Your task to perform on an android device: Open Yahoo.com Image 0: 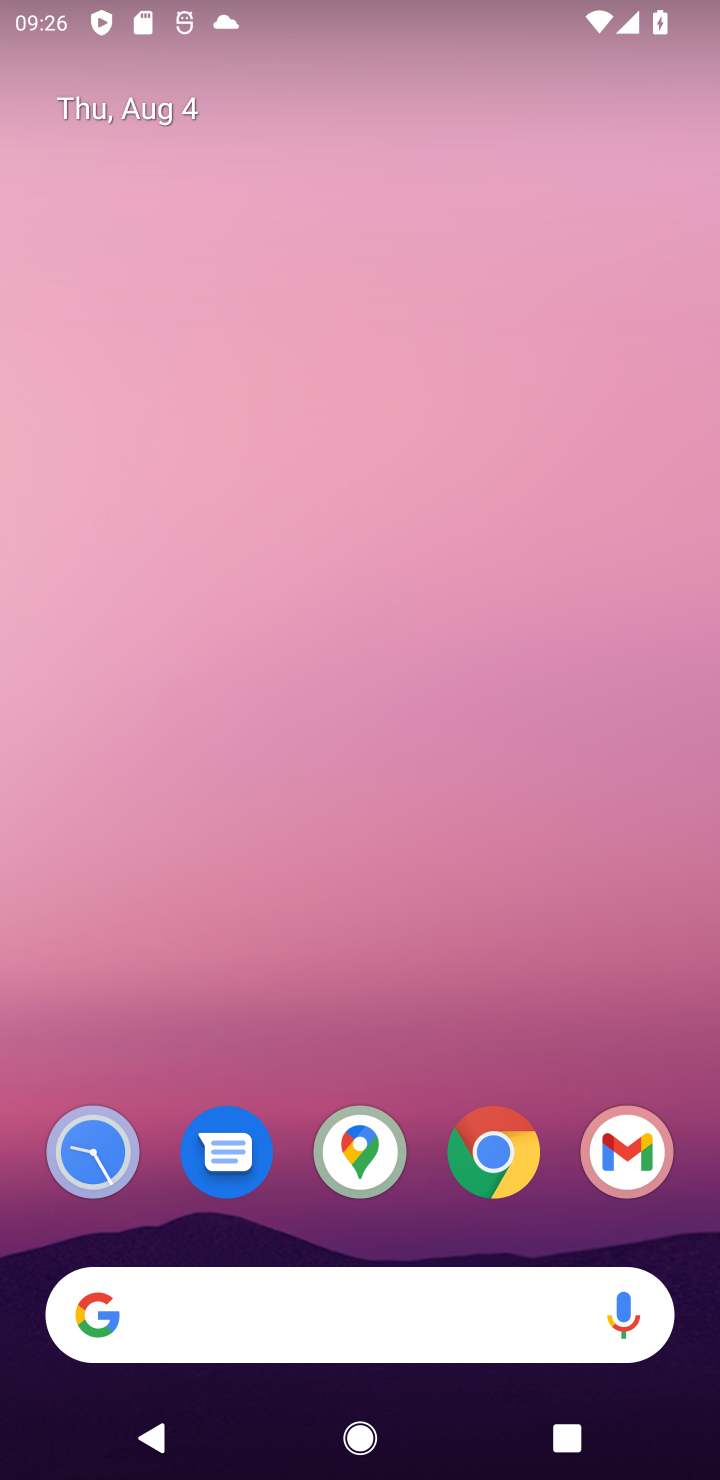
Step 0: click (475, 1159)
Your task to perform on an android device: Open Yahoo.com Image 1: 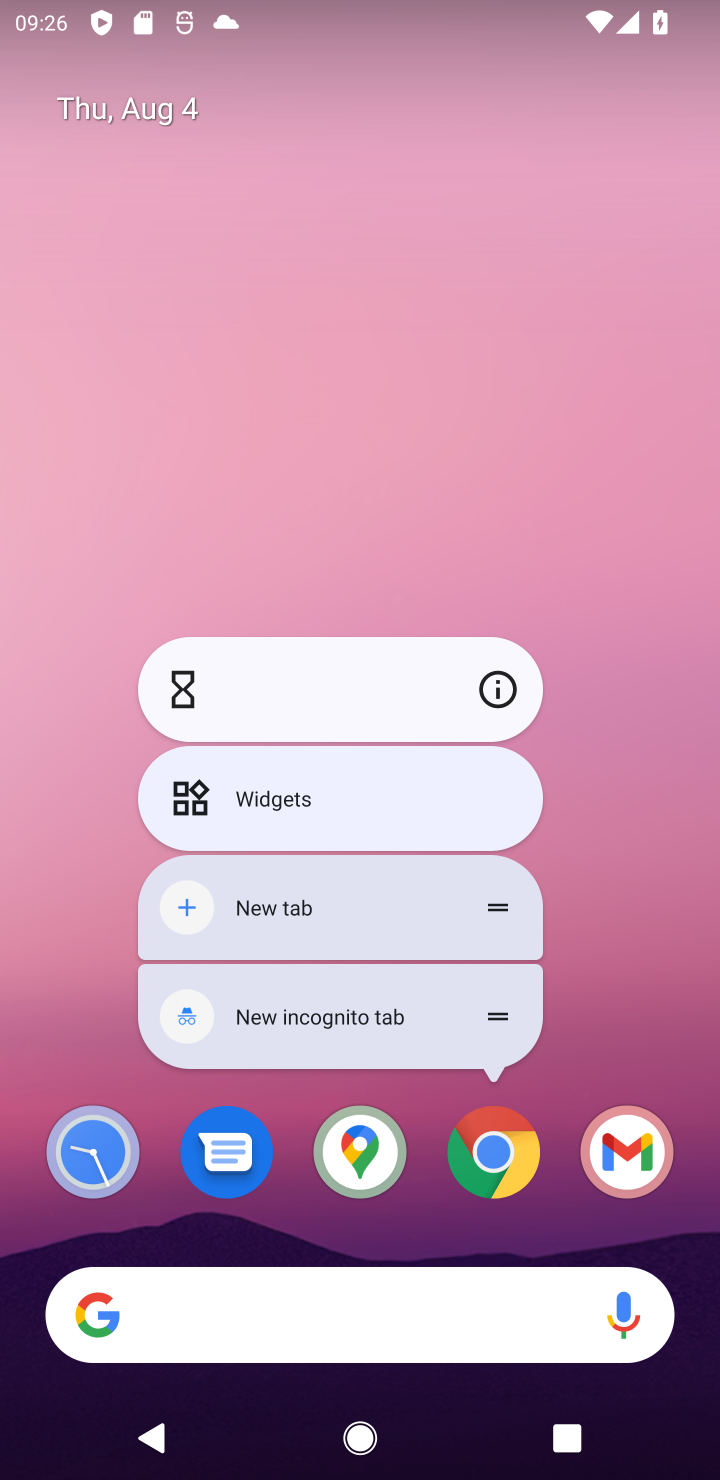
Step 1: click (484, 1120)
Your task to perform on an android device: Open Yahoo.com Image 2: 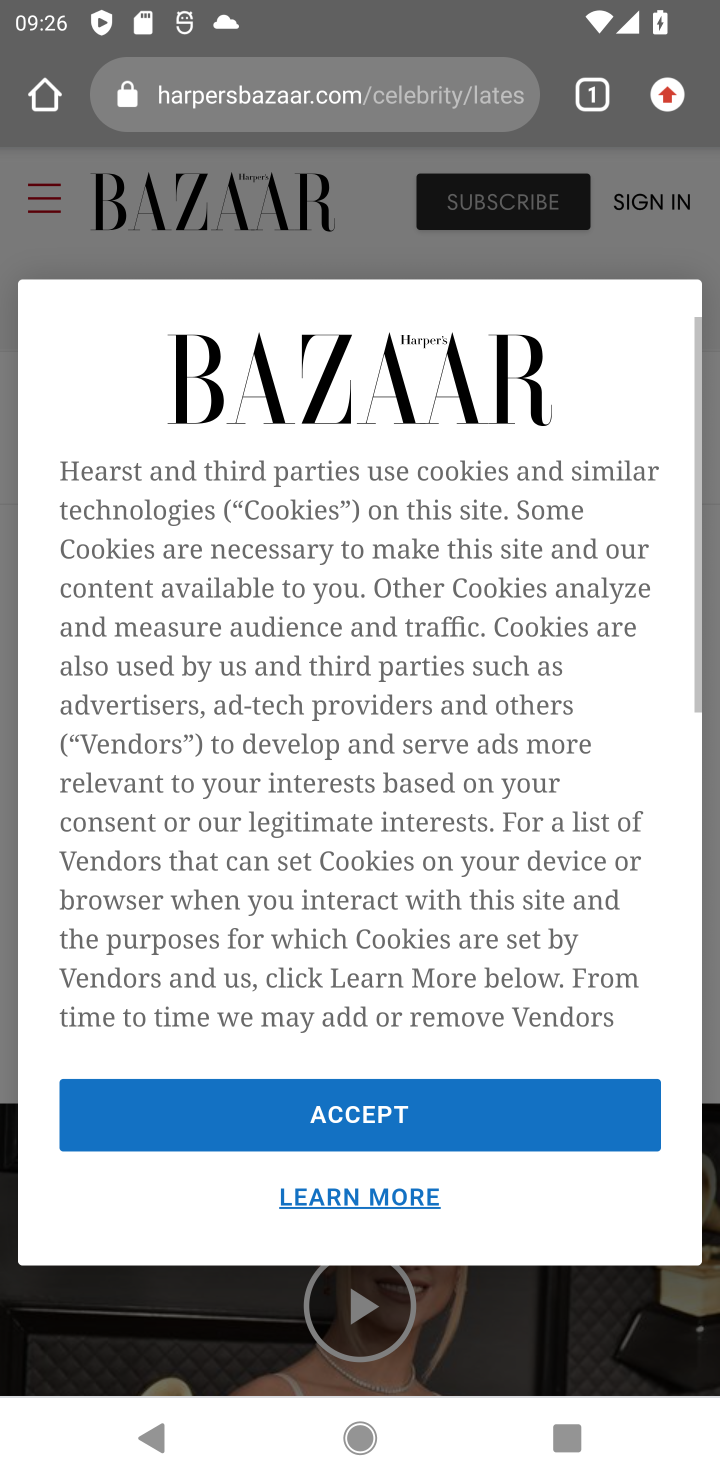
Step 2: click (577, 98)
Your task to perform on an android device: Open Yahoo.com Image 3: 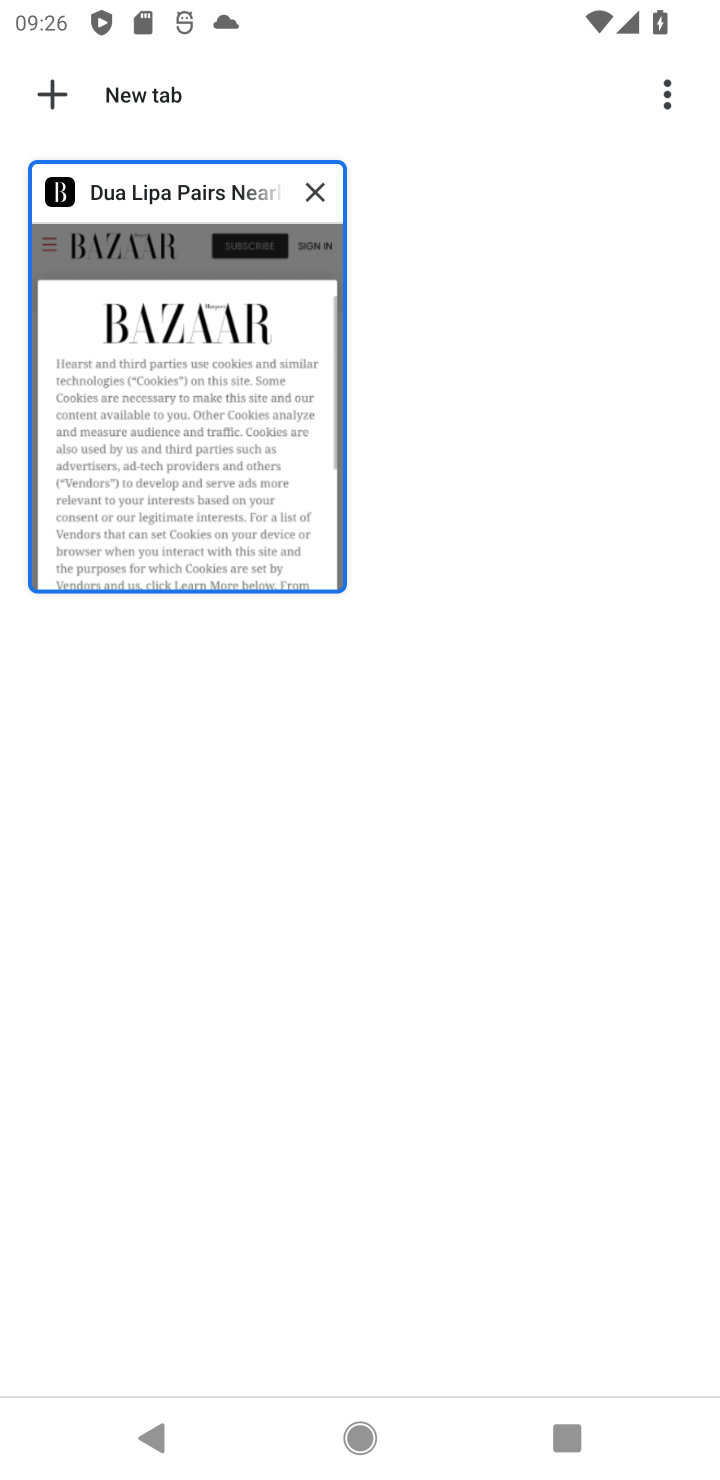
Step 3: click (324, 193)
Your task to perform on an android device: Open Yahoo.com Image 4: 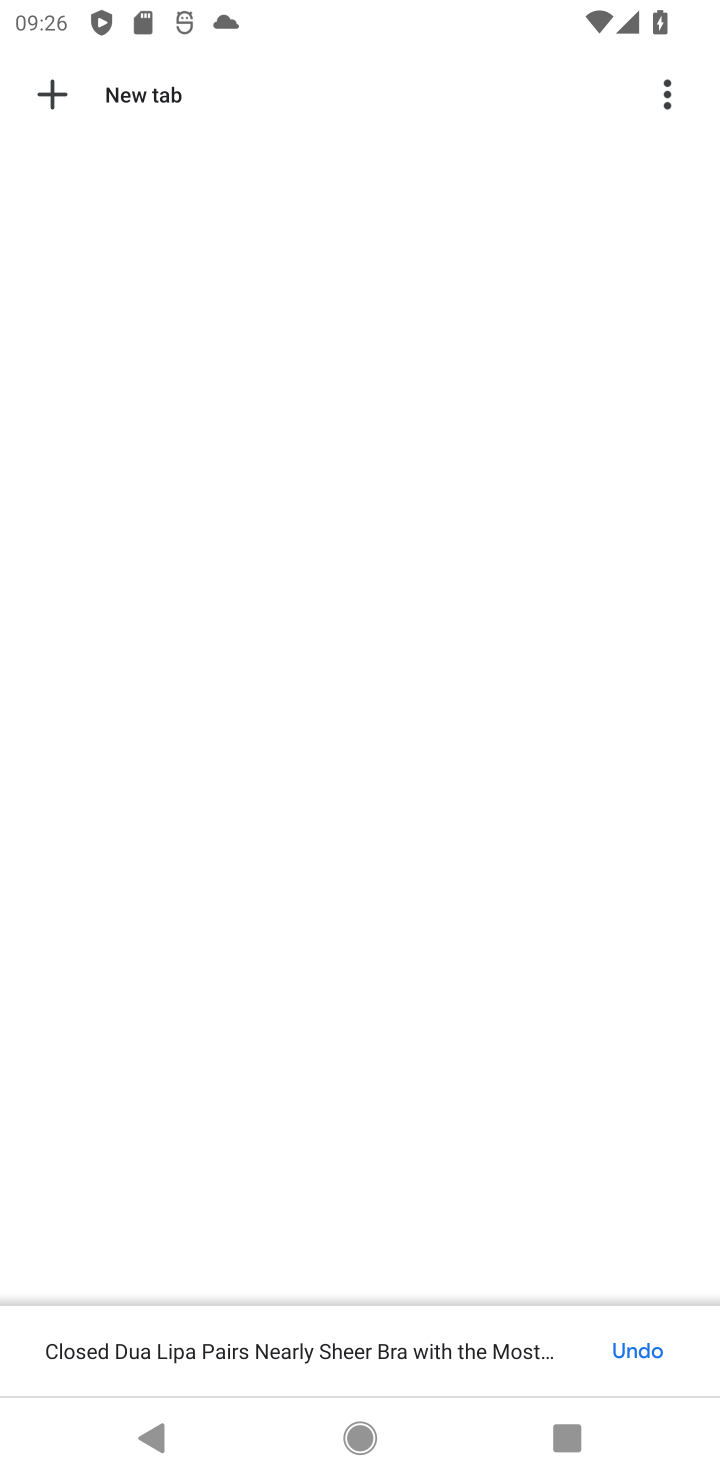
Step 4: click (49, 105)
Your task to perform on an android device: Open Yahoo.com Image 5: 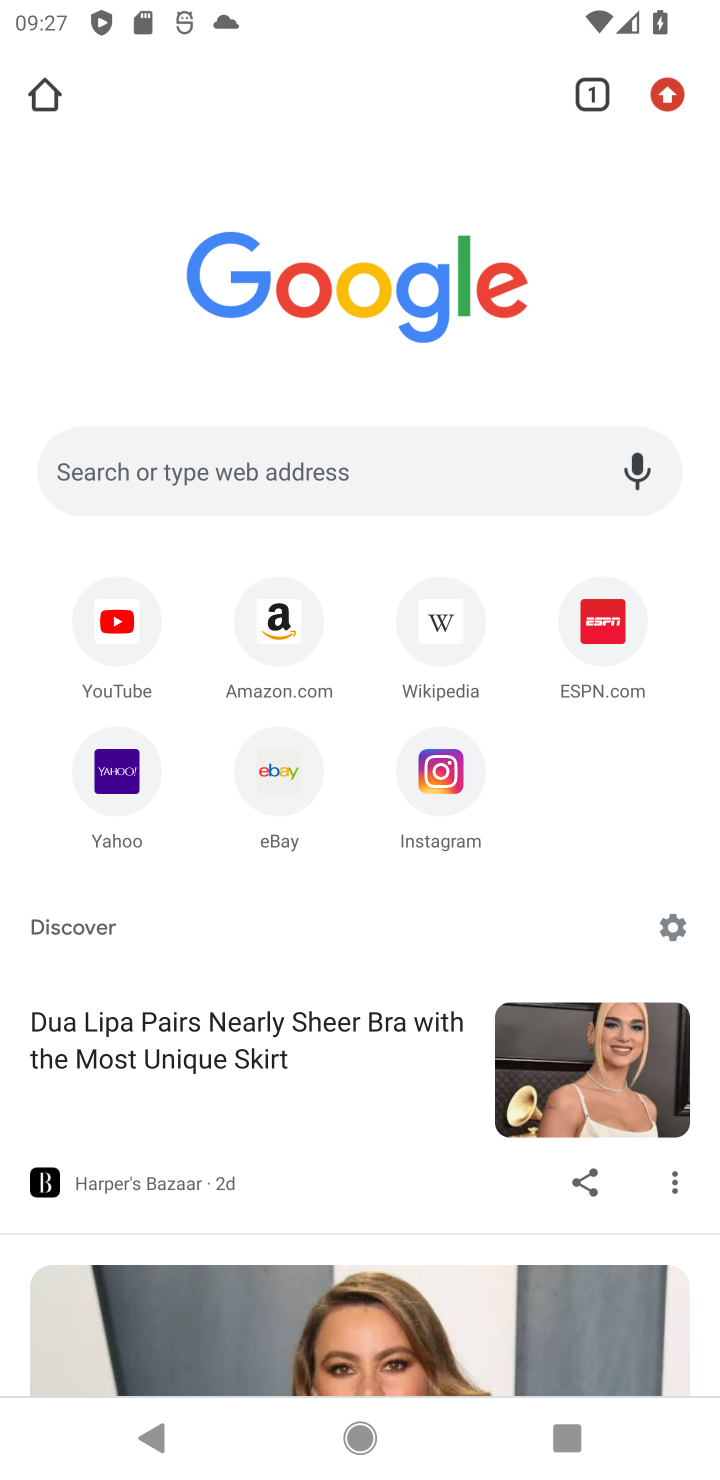
Step 5: click (122, 797)
Your task to perform on an android device: Open Yahoo.com Image 6: 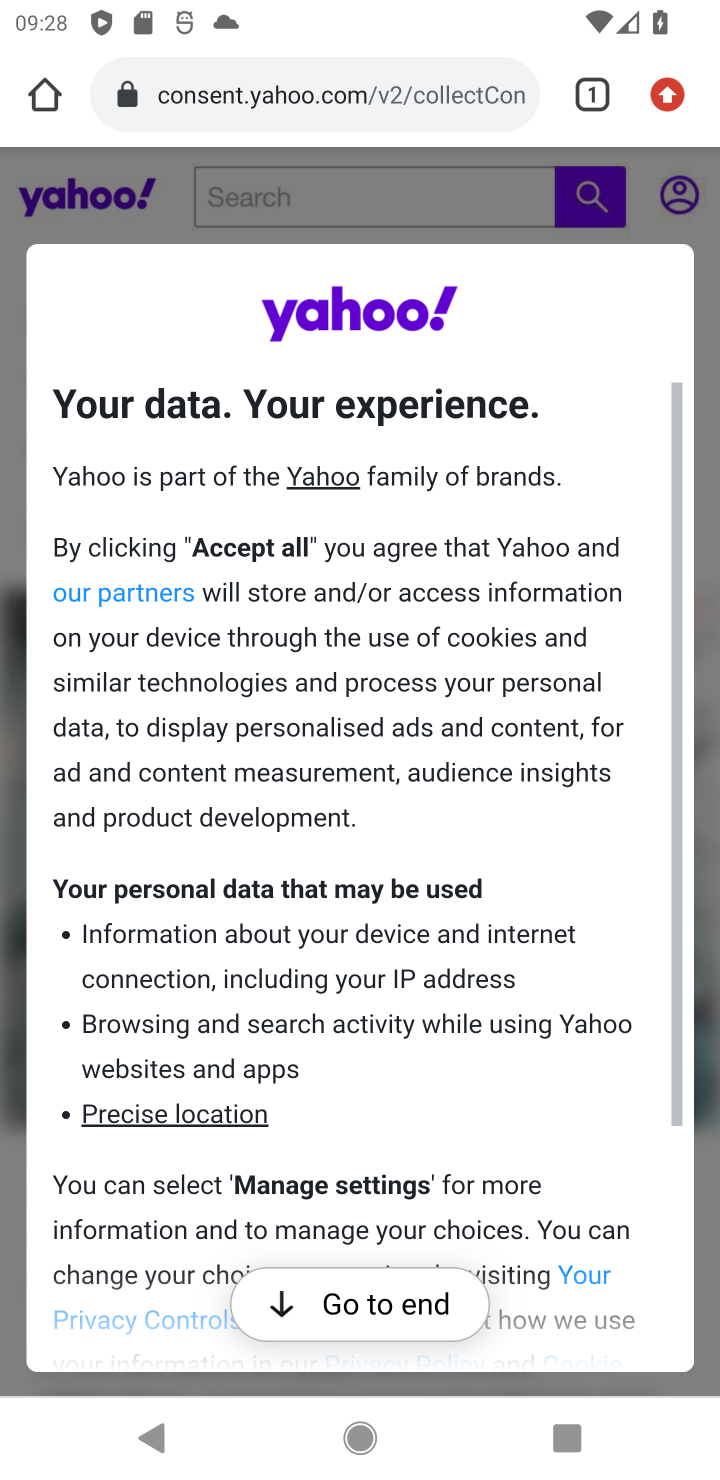
Step 6: task complete